Your task to perform on an android device: open chrome privacy settings Image 0: 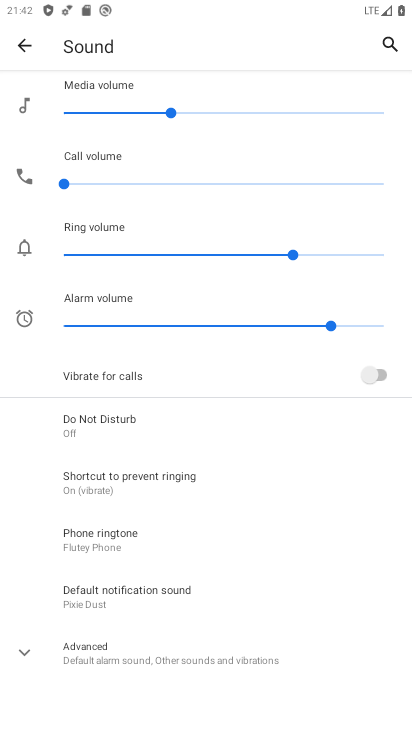
Step 0: press home button
Your task to perform on an android device: open chrome privacy settings Image 1: 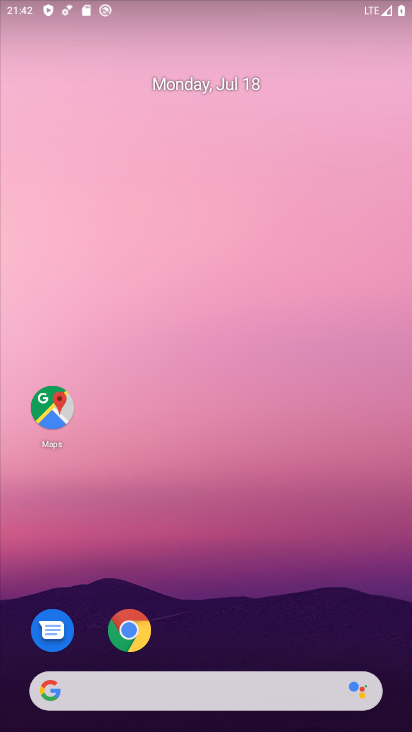
Step 1: drag from (202, 623) to (45, 83)
Your task to perform on an android device: open chrome privacy settings Image 2: 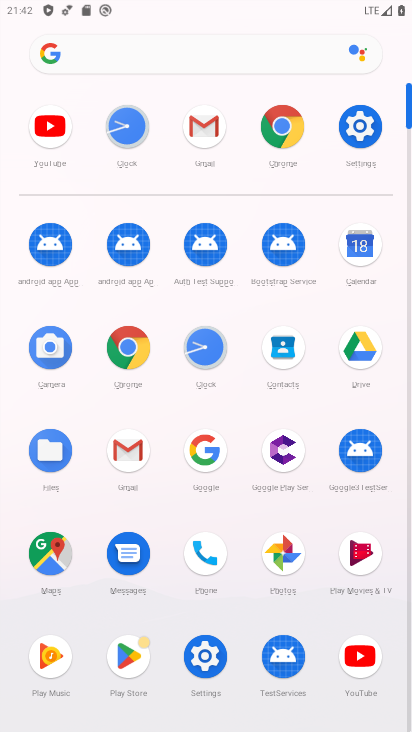
Step 2: click (373, 131)
Your task to perform on an android device: open chrome privacy settings Image 3: 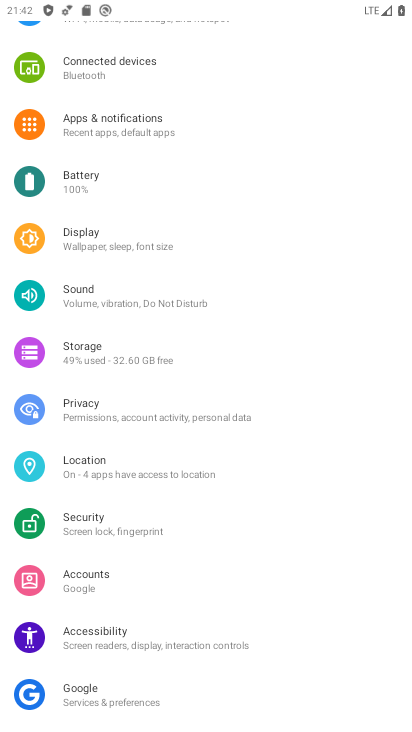
Step 3: click (125, 414)
Your task to perform on an android device: open chrome privacy settings Image 4: 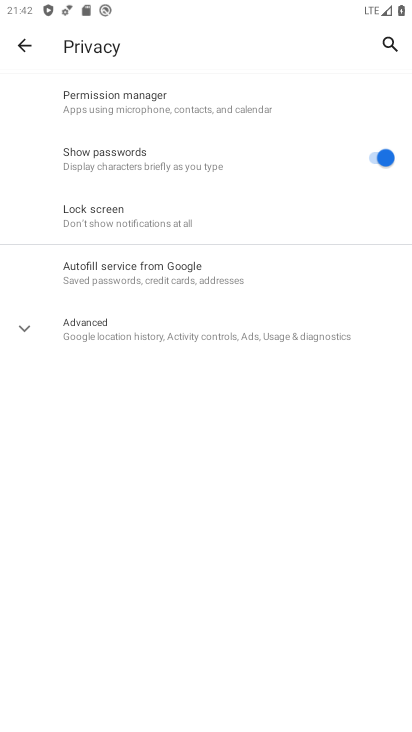
Step 4: task complete